Your task to perform on an android device: toggle airplane mode Image 0: 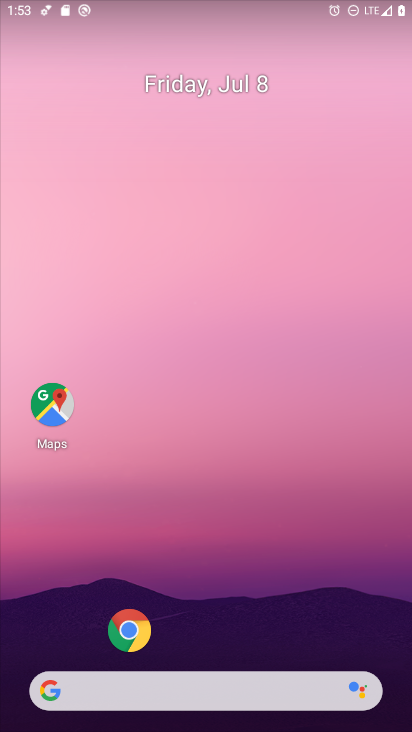
Step 0: drag from (282, 704) to (170, 101)
Your task to perform on an android device: toggle airplane mode Image 1: 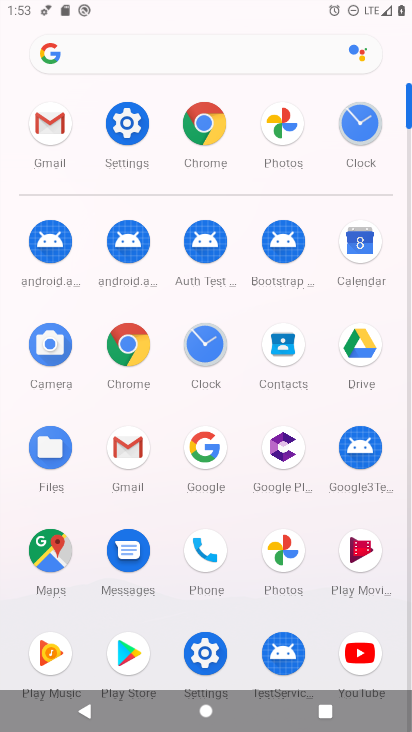
Step 1: click (111, 111)
Your task to perform on an android device: toggle airplane mode Image 2: 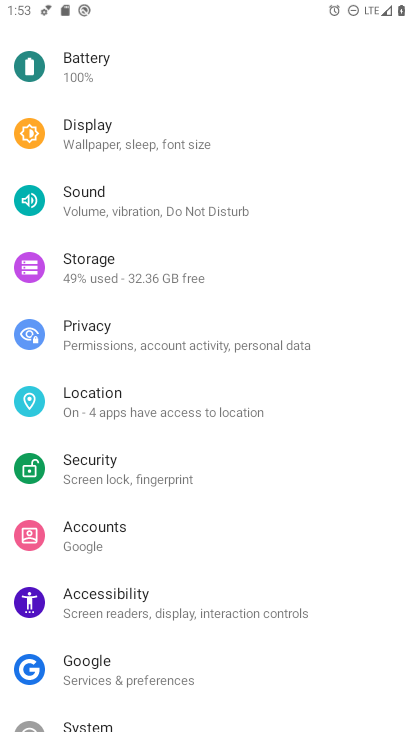
Step 2: drag from (197, 139) to (281, 731)
Your task to perform on an android device: toggle airplane mode Image 3: 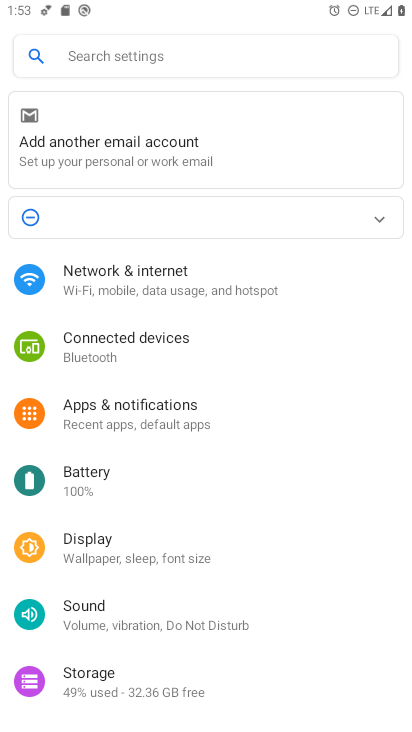
Step 3: click (172, 289)
Your task to perform on an android device: toggle airplane mode Image 4: 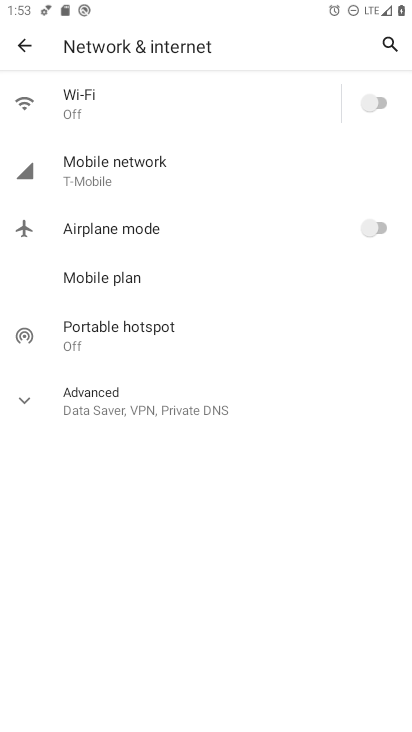
Step 4: click (387, 226)
Your task to perform on an android device: toggle airplane mode Image 5: 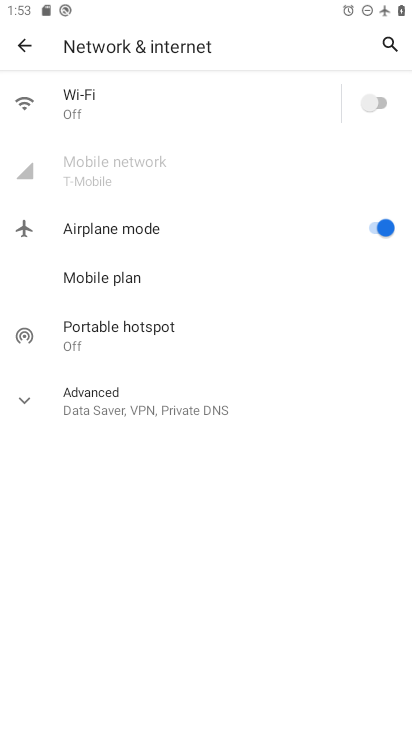
Step 5: task complete